Your task to perform on an android device: move an email to a new category in the gmail app Image 0: 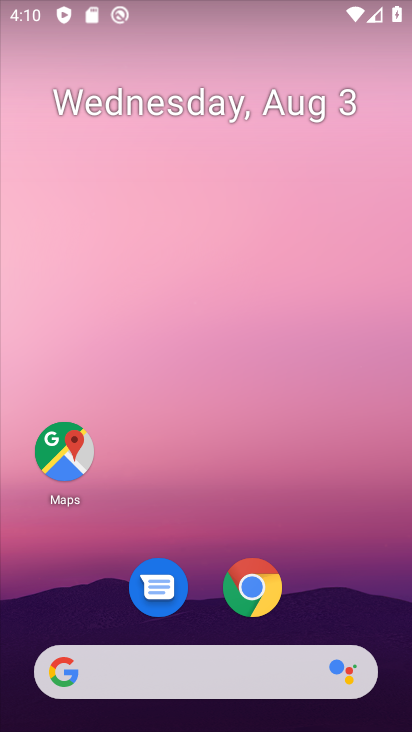
Step 0: drag from (131, 436) to (191, 104)
Your task to perform on an android device: move an email to a new category in the gmail app Image 1: 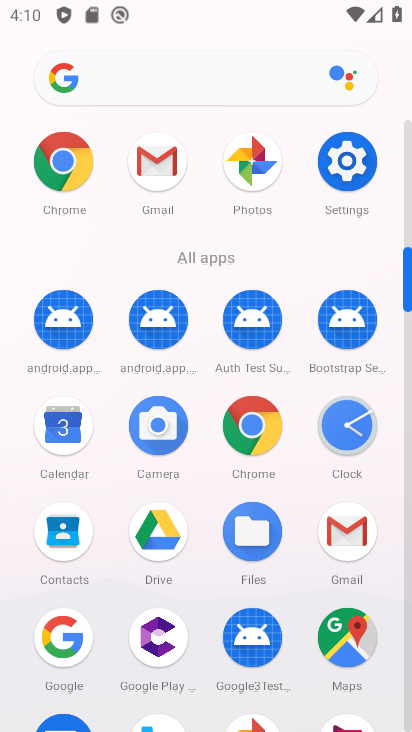
Step 1: click (159, 152)
Your task to perform on an android device: move an email to a new category in the gmail app Image 2: 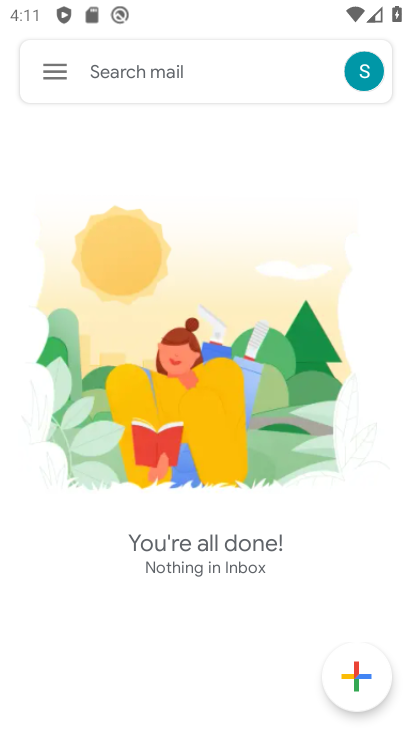
Step 2: click (39, 84)
Your task to perform on an android device: move an email to a new category in the gmail app Image 3: 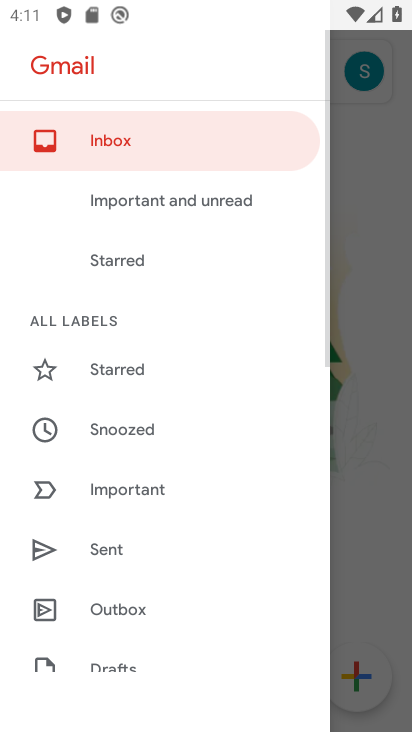
Step 3: click (134, 150)
Your task to perform on an android device: move an email to a new category in the gmail app Image 4: 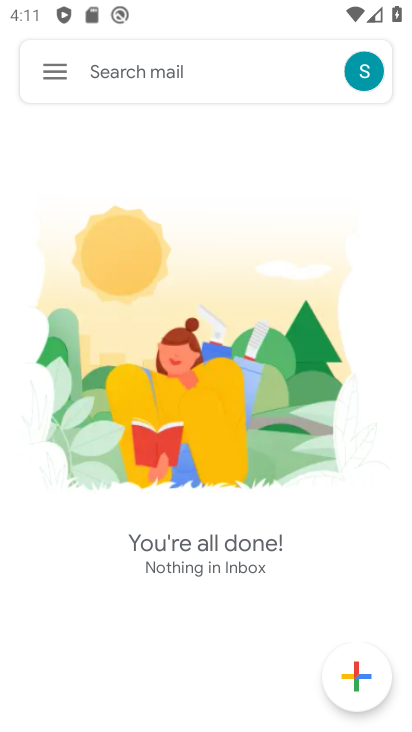
Step 4: task complete